Your task to perform on an android device: Open Youtube and go to the subscriptions tab Image 0: 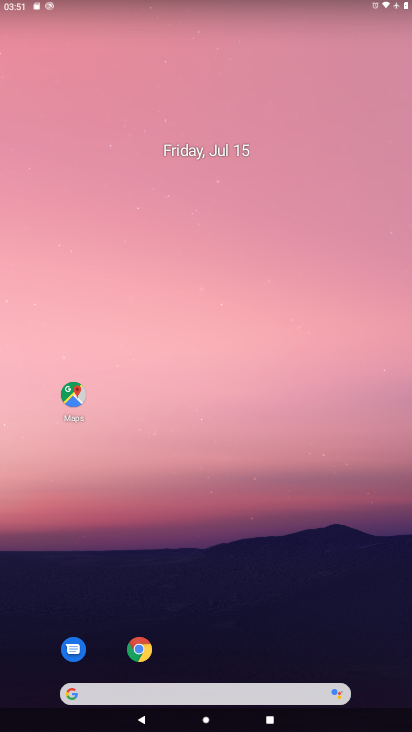
Step 0: drag from (388, 671) to (329, 54)
Your task to perform on an android device: Open Youtube and go to the subscriptions tab Image 1: 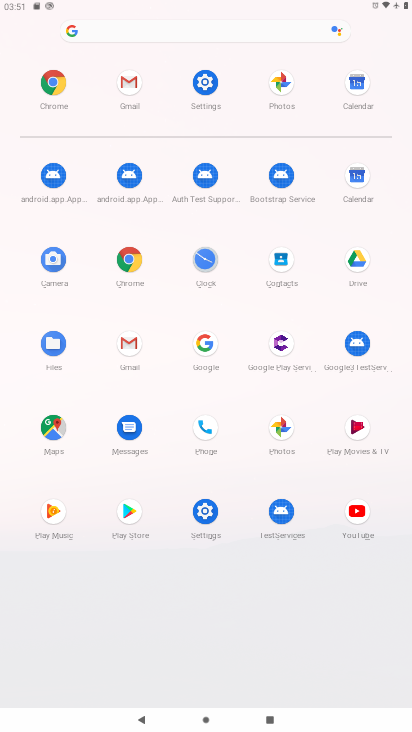
Step 1: click (356, 514)
Your task to perform on an android device: Open Youtube and go to the subscriptions tab Image 2: 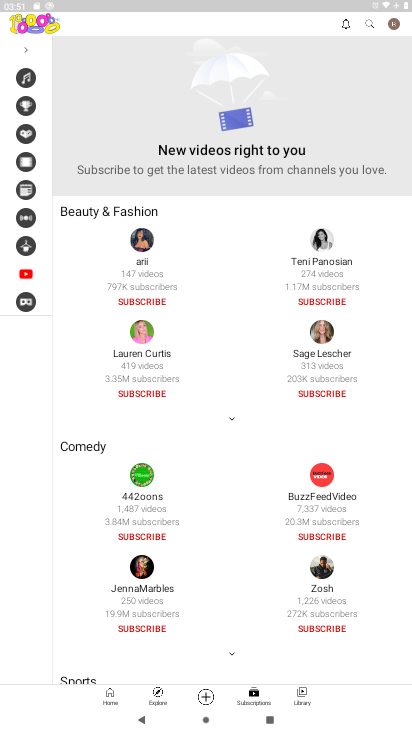
Step 2: task complete